Your task to perform on an android device: change the upload size in google photos Image 0: 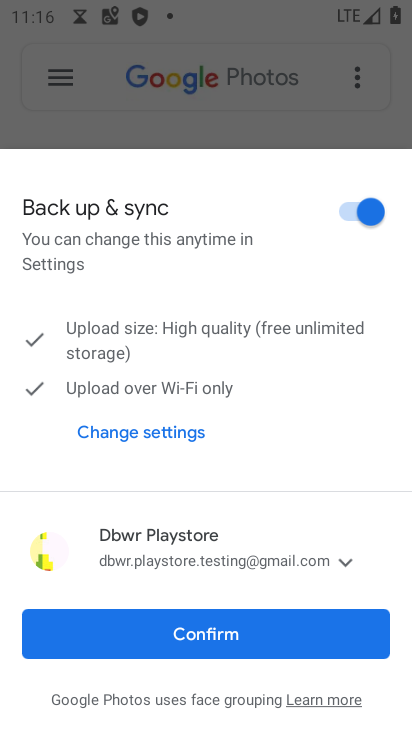
Step 0: click (232, 637)
Your task to perform on an android device: change the upload size in google photos Image 1: 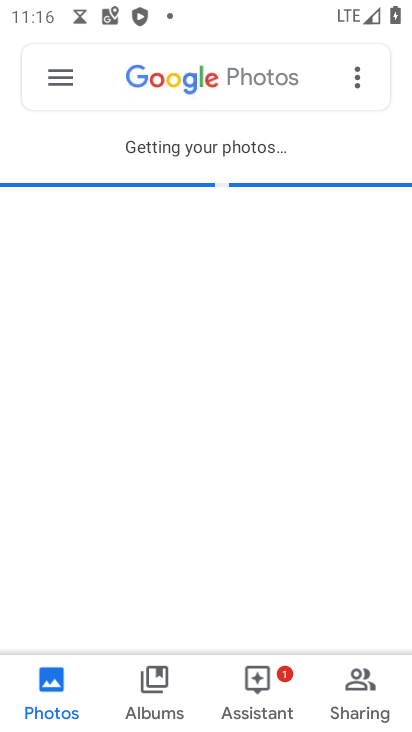
Step 1: click (52, 51)
Your task to perform on an android device: change the upload size in google photos Image 2: 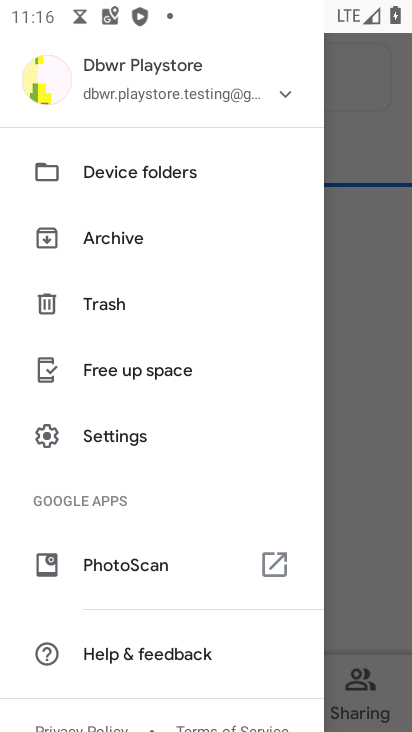
Step 2: drag from (127, 616) to (183, 349)
Your task to perform on an android device: change the upload size in google photos Image 3: 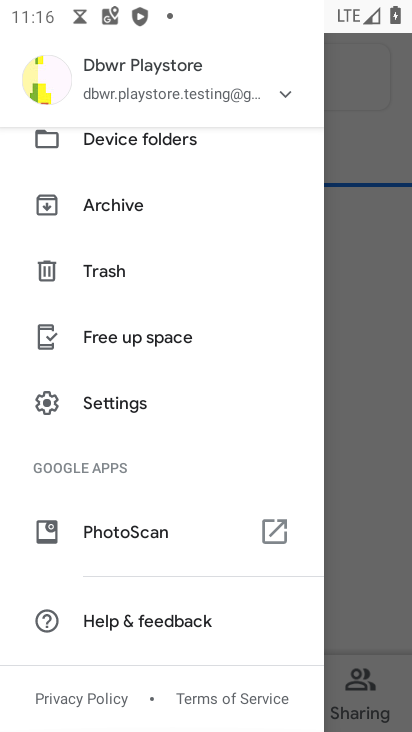
Step 3: click (131, 404)
Your task to perform on an android device: change the upload size in google photos Image 4: 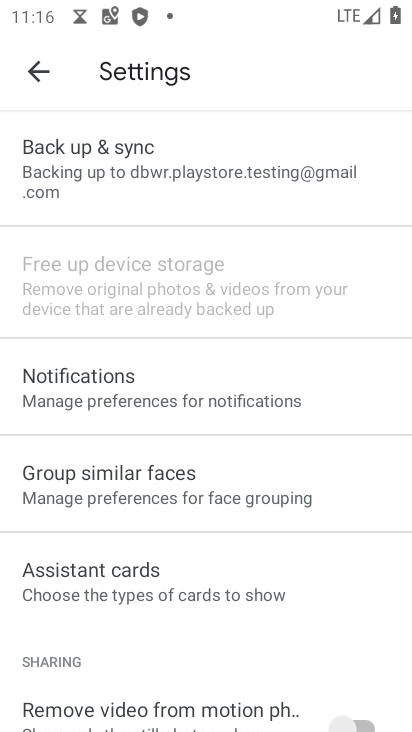
Step 4: click (217, 181)
Your task to perform on an android device: change the upload size in google photos Image 5: 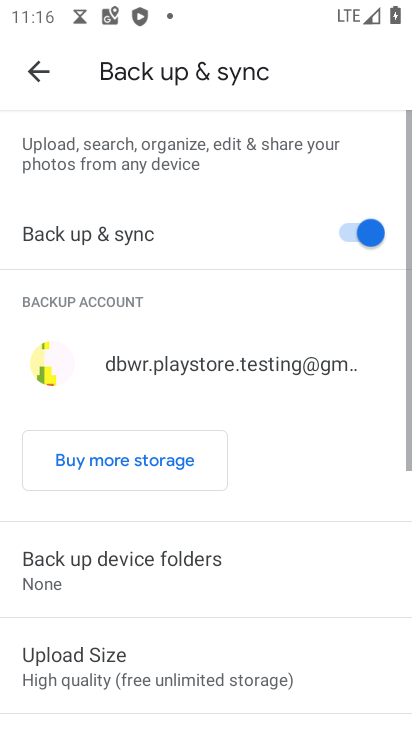
Step 5: drag from (153, 656) to (226, 387)
Your task to perform on an android device: change the upload size in google photos Image 6: 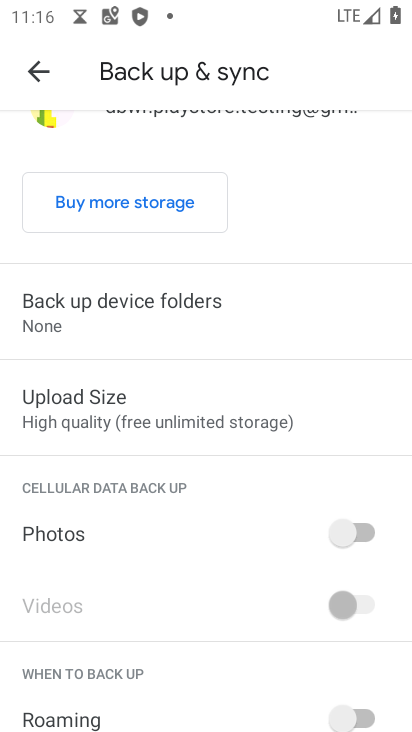
Step 6: click (141, 410)
Your task to perform on an android device: change the upload size in google photos Image 7: 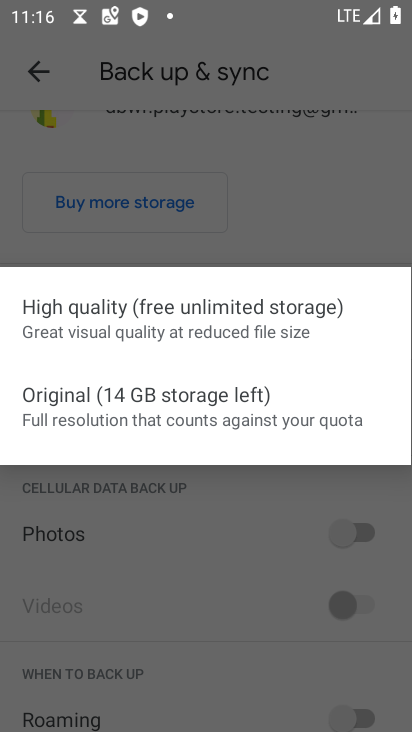
Step 7: click (147, 408)
Your task to perform on an android device: change the upload size in google photos Image 8: 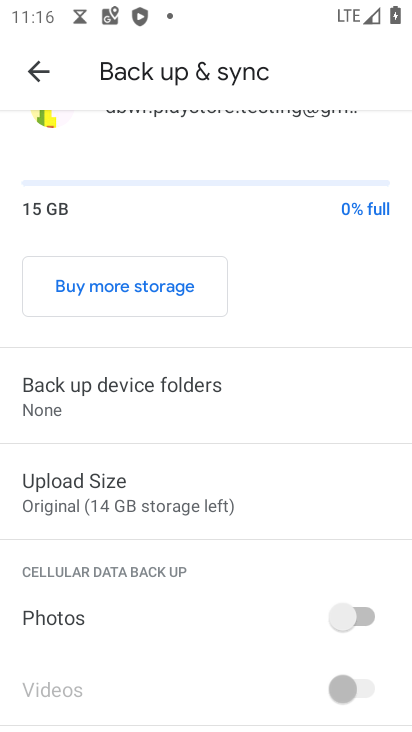
Step 8: task complete